Your task to perform on an android device: turn on improve location accuracy Image 0: 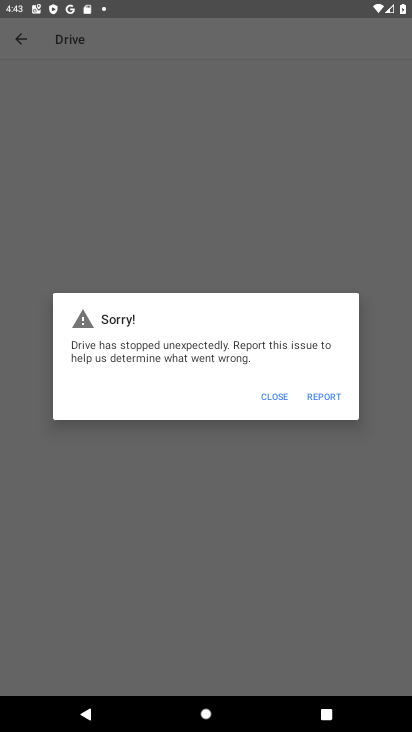
Step 0: press home button
Your task to perform on an android device: turn on improve location accuracy Image 1: 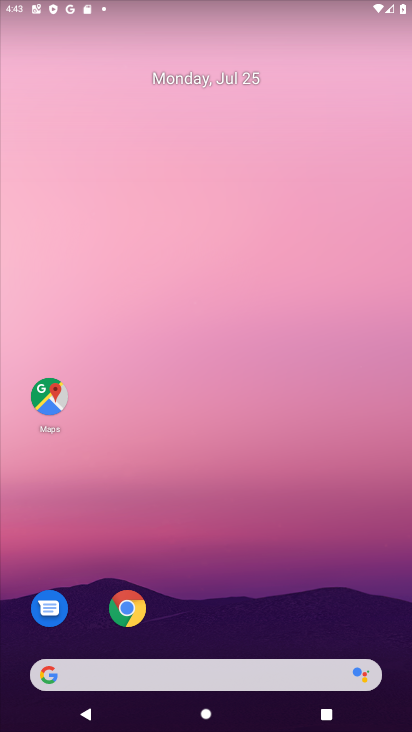
Step 1: drag from (214, 572) to (270, 38)
Your task to perform on an android device: turn on improve location accuracy Image 2: 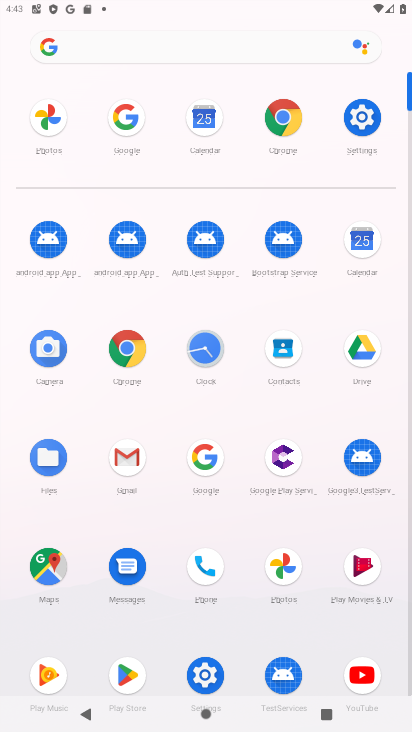
Step 2: click (205, 673)
Your task to perform on an android device: turn on improve location accuracy Image 3: 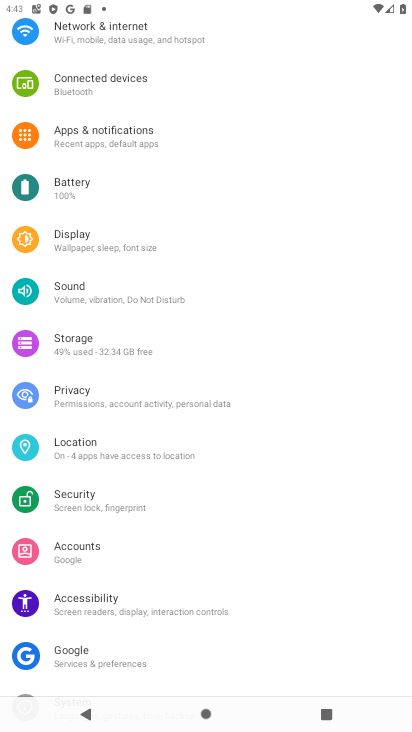
Step 3: click (99, 435)
Your task to perform on an android device: turn on improve location accuracy Image 4: 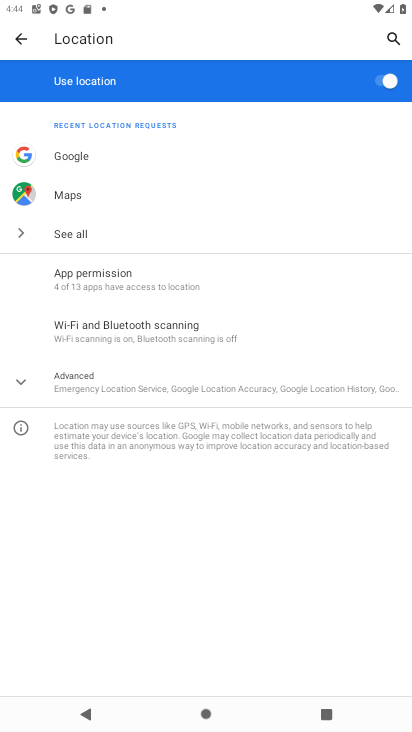
Step 4: click (23, 373)
Your task to perform on an android device: turn on improve location accuracy Image 5: 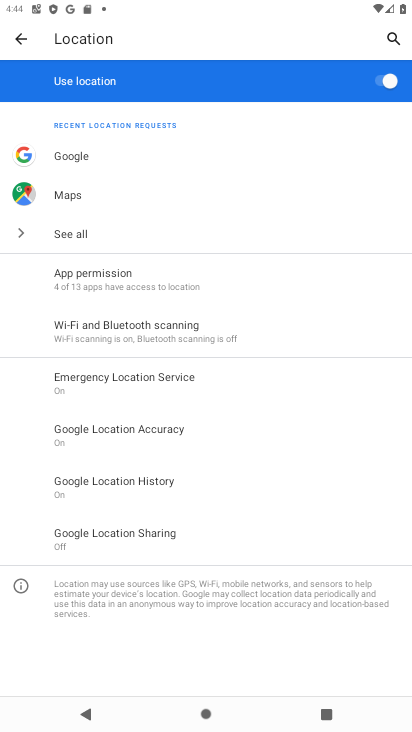
Step 5: click (31, 434)
Your task to perform on an android device: turn on improve location accuracy Image 6: 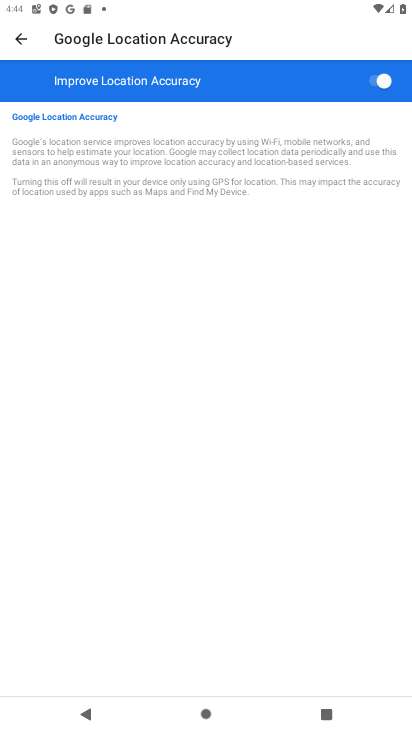
Step 6: task complete